Your task to perform on an android device: Go to wifi settings Image 0: 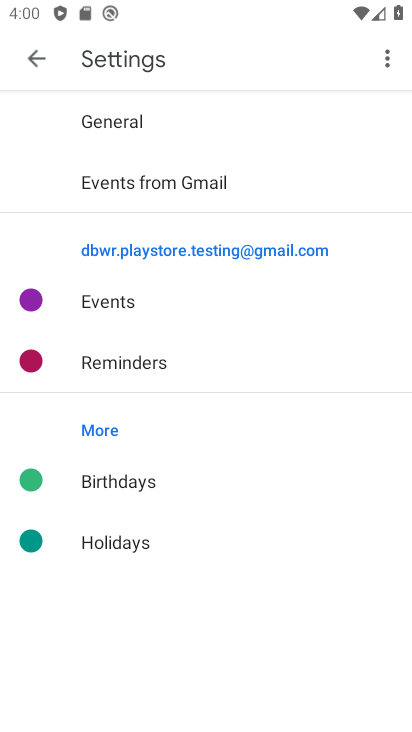
Step 0: press home button
Your task to perform on an android device: Go to wifi settings Image 1: 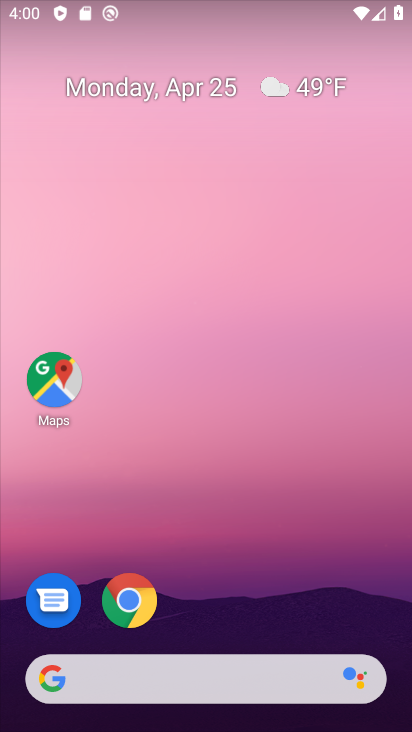
Step 1: drag from (281, 552) to (213, 2)
Your task to perform on an android device: Go to wifi settings Image 2: 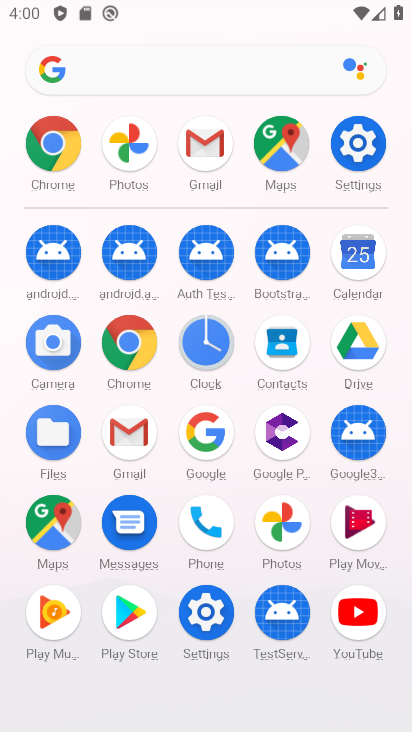
Step 2: click (366, 141)
Your task to perform on an android device: Go to wifi settings Image 3: 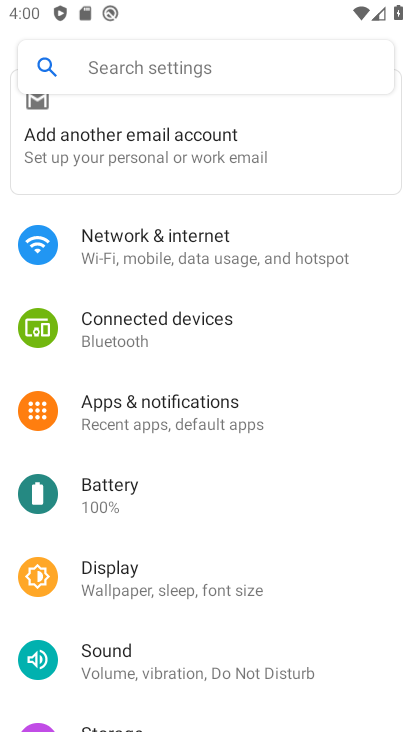
Step 3: click (241, 244)
Your task to perform on an android device: Go to wifi settings Image 4: 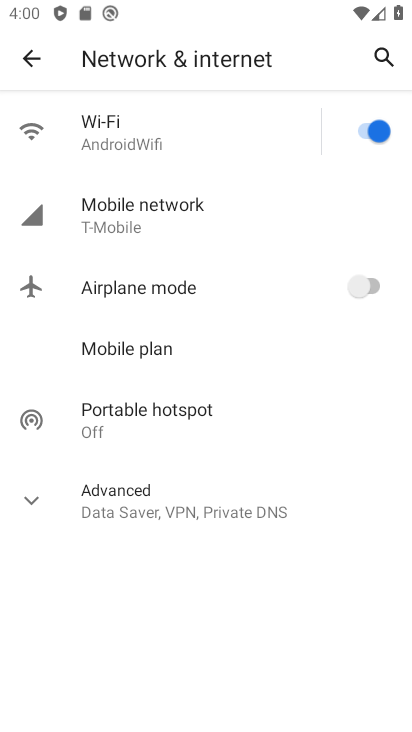
Step 4: click (237, 131)
Your task to perform on an android device: Go to wifi settings Image 5: 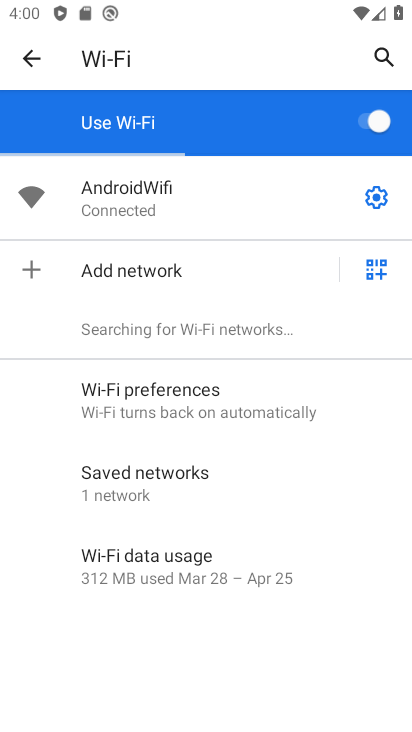
Step 5: task complete